Your task to perform on an android device: Go to internet settings Image 0: 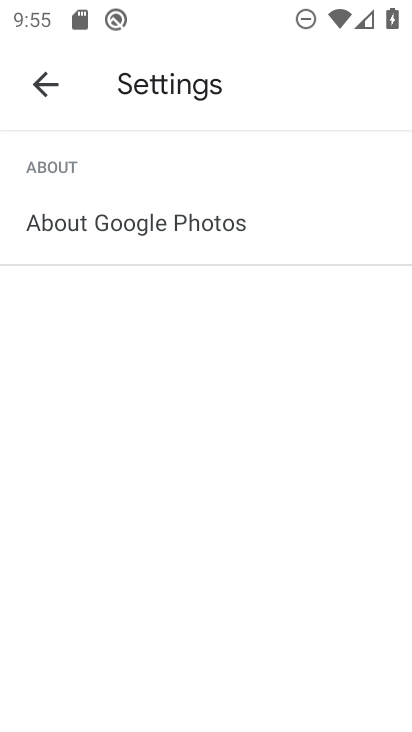
Step 0: press home button
Your task to perform on an android device: Go to internet settings Image 1: 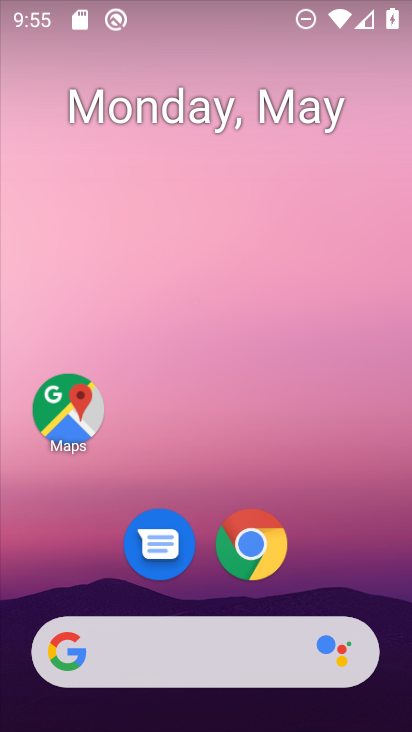
Step 1: drag from (339, 561) to (227, 150)
Your task to perform on an android device: Go to internet settings Image 2: 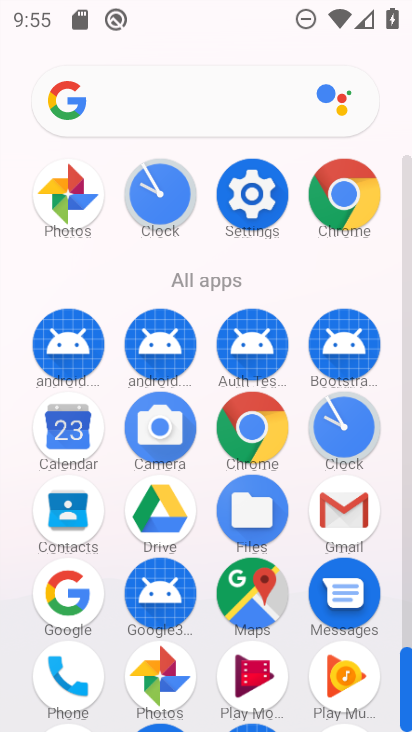
Step 2: click (266, 205)
Your task to perform on an android device: Go to internet settings Image 3: 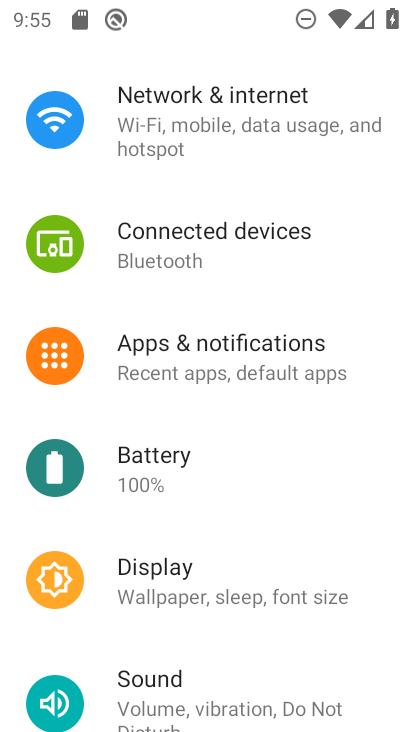
Step 3: click (316, 137)
Your task to perform on an android device: Go to internet settings Image 4: 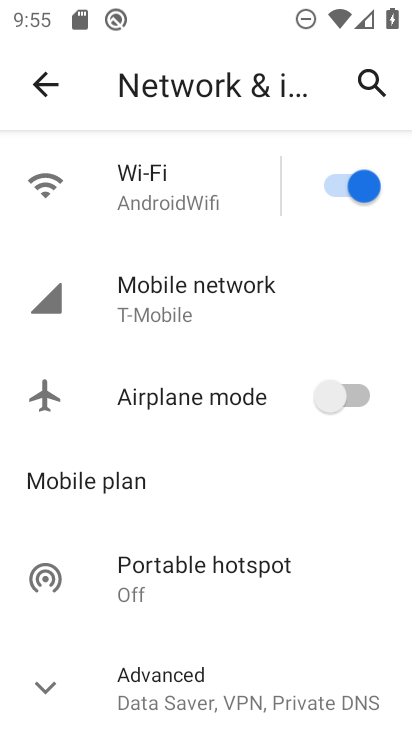
Step 4: task complete